Your task to perform on an android device: Go to display settings Image 0: 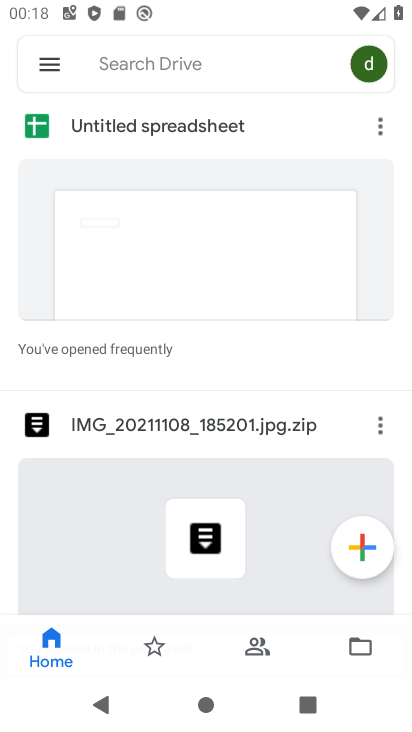
Step 0: press home button
Your task to perform on an android device: Go to display settings Image 1: 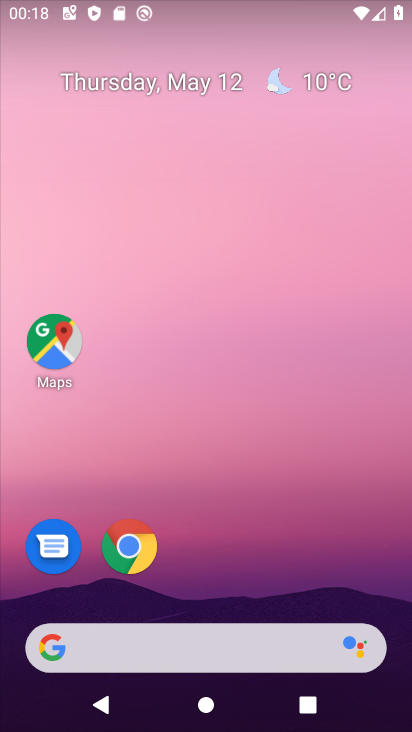
Step 1: drag from (190, 581) to (275, 198)
Your task to perform on an android device: Go to display settings Image 2: 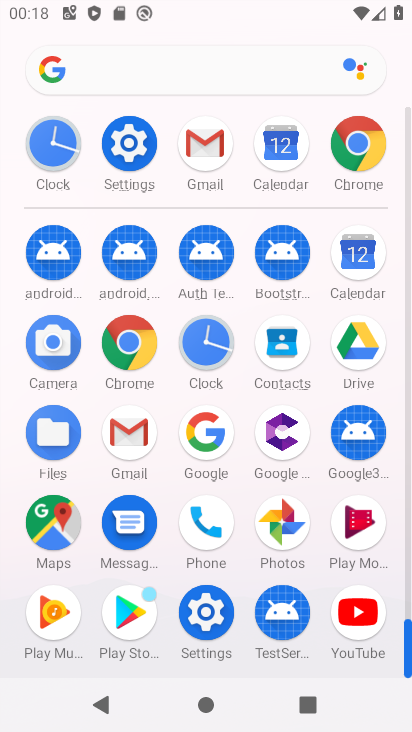
Step 2: click (135, 144)
Your task to perform on an android device: Go to display settings Image 3: 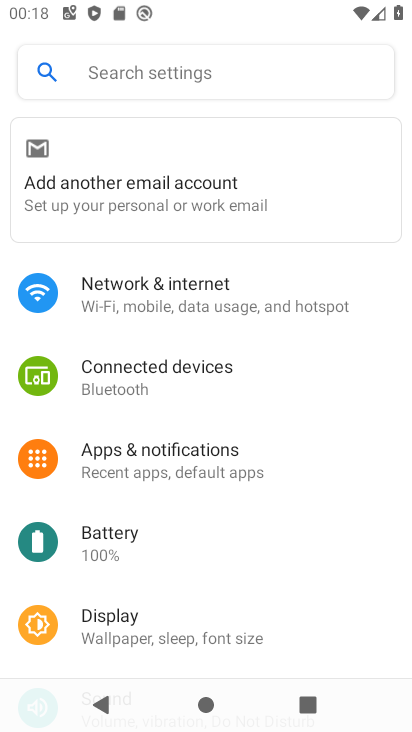
Step 3: click (122, 626)
Your task to perform on an android device: Go to display settings Image 4: 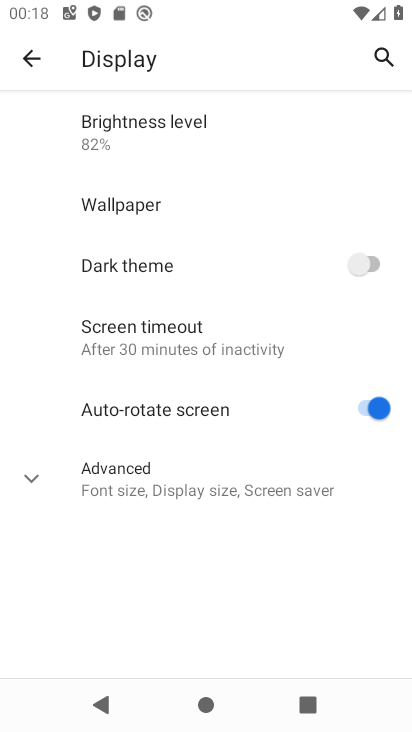
Step 4: task complete